Your task to perform on an android device: delete the emails in spam in the gmail app Image 0: 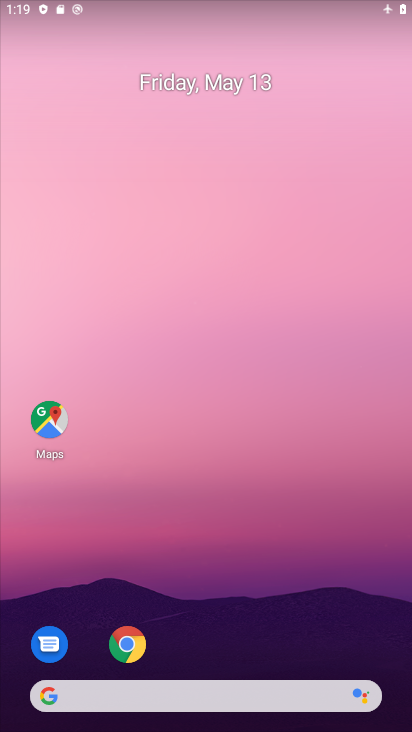
Step 0: drag from (284, 586) to (271, 164)
Your task to perform on an android device: delete the emails in spam in the gmail app Image 1: 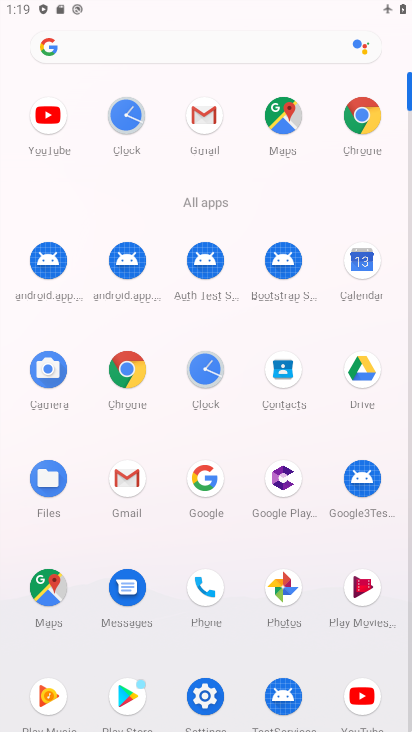
Step 1: click (131, 489)
Your task to perform on an android device: delete the emails in spam in the gmail app Image 2: 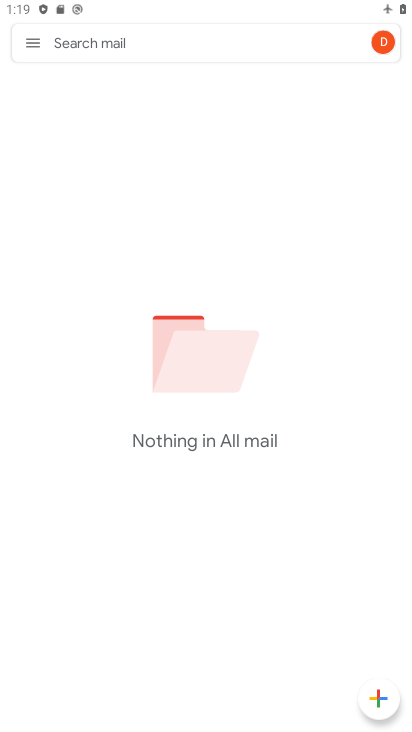
Step 2: click (35, 46)
Your task to perform on an android device: delete the emails in spam in the gmail app Image 3: 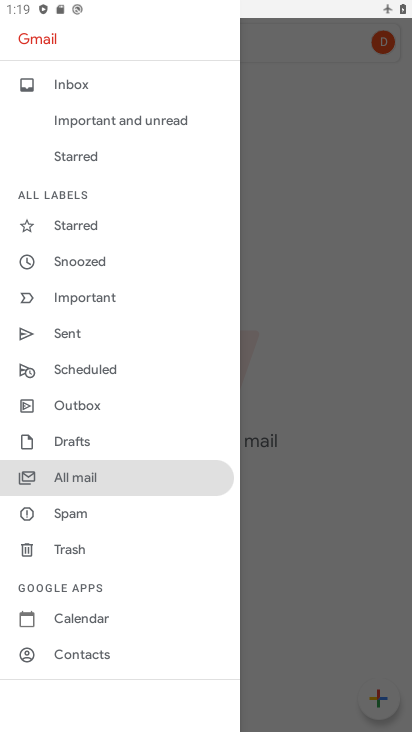
Step 3: click (71, 519)
Your task to perform on an android device: delete the emails in spam in the gmail app Image 4: 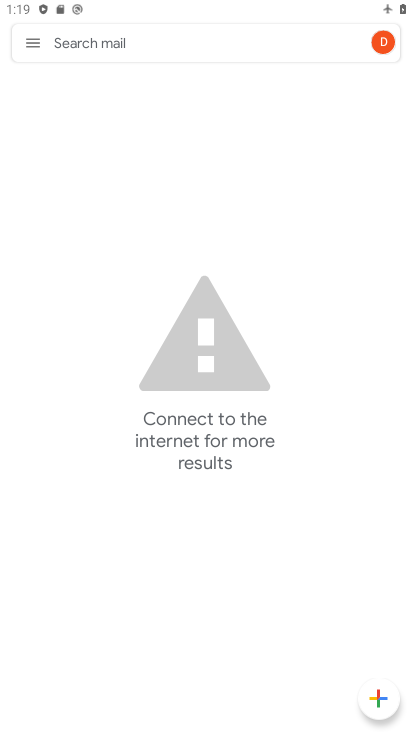
Step 4: task complete